Your task to perform on an android device: read, delete, or share a saved page in the chrome app Image 0: 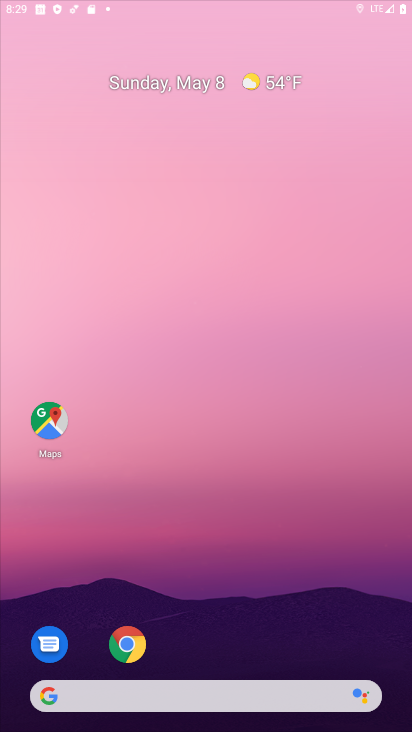
Step 0: click (278, 217)
Your task to perform on an android device: read, delete, or share a saved page in the chrome app Image 1: 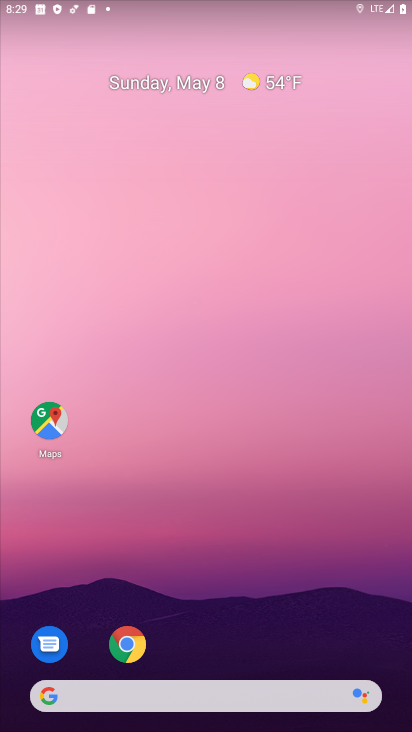
Step 1: drag from (201, 641) to (210, 108)
Your task to perform on an android device: read, delete, or share a saved page in the chrome app Image 2: 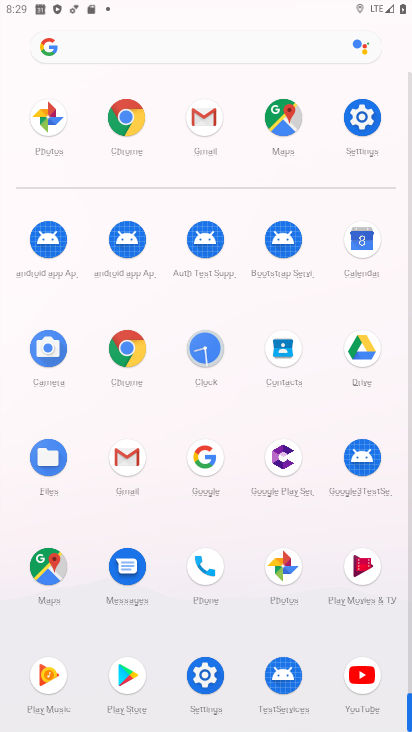
Step 2: click (116, 115)
Your task to perform on an android device: read, delete, or share a saved page in the chrome app Image 3: 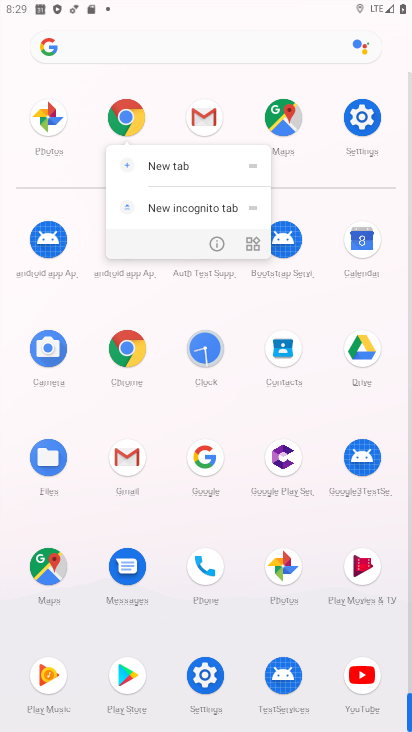
Step 3: click (217, 245)
Your task to perform on an android device: read, delete, or share a saved page in the chrome app Image 4: 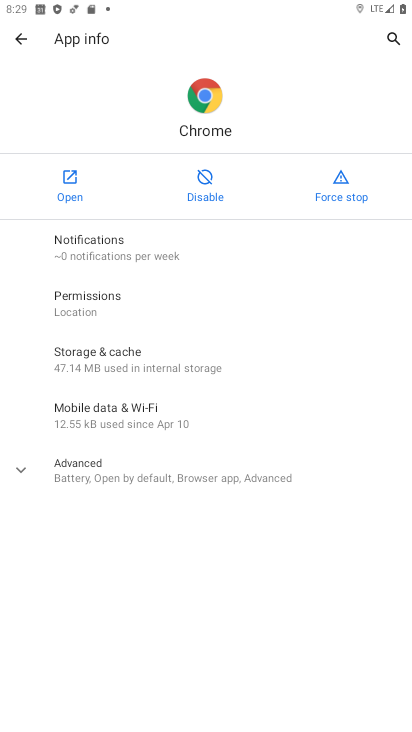
Step 4: click (73, 172)
Your task to perform on an android device: read, delete, or share a saved page in the chrome app Image 5: 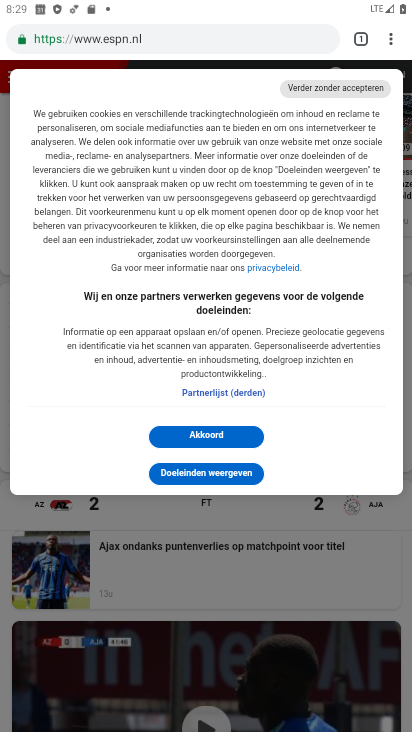
Step 5: drag from (208, 353) to (219, 82)
Your task to perform on an android device: read, delete, or share a saved page in the chrome app Image 6: 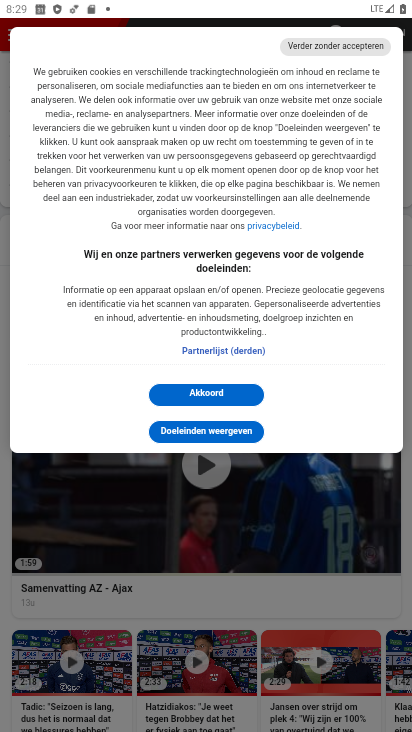
Step 6: drag from (215, 370) to (237, 47)
Your task to perform on an android device: read, delete, or share a saved page in the chrome app Image 7: 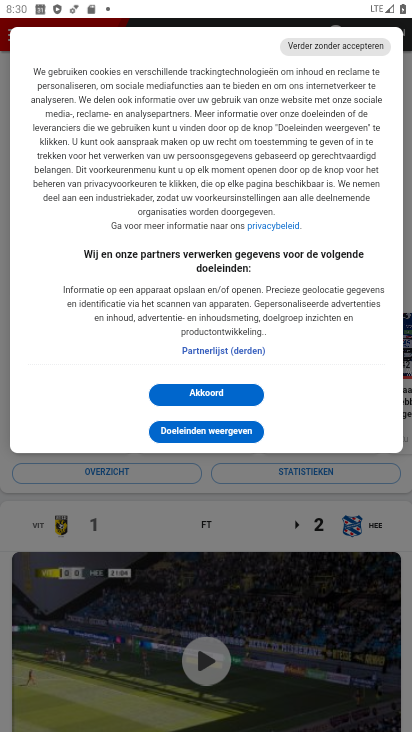
Step 7: drag from (210, 115) to (246, 729)
Your task to perform on an android device: read, delete, or share a saved page in the chrome app Image 8: 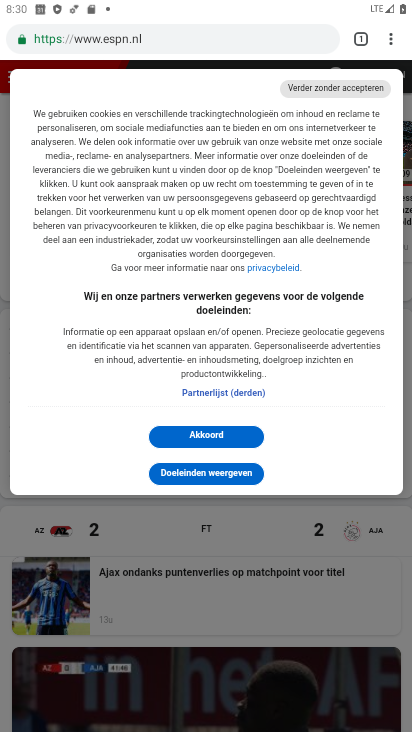
Step 8: drag from (230, 284) to (281, 17)
Your task to perform on an android device: read, delete, or share a saved page in the chrome app Image 9: 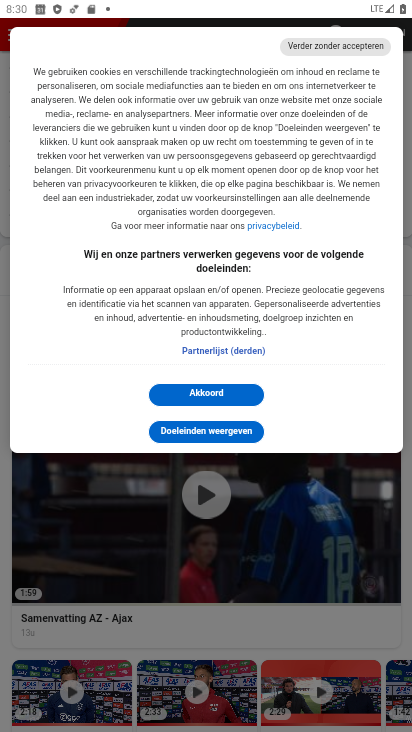
Step 9: drag from (234, 182) to (318, 724)
Your task to perform on an android device: read, delete, or share a saved page in the chrome app Image 10: 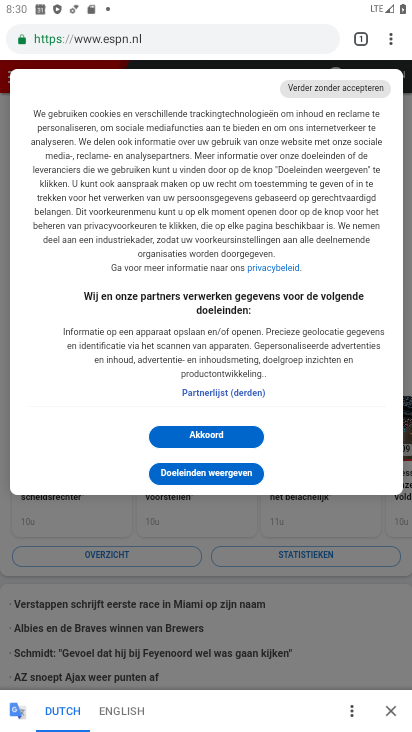
Step 10: drag from (391, 29) to (286, 229)
Your task to perform on an android device: read, delete, or share a saved page in the chrome app Image 11: 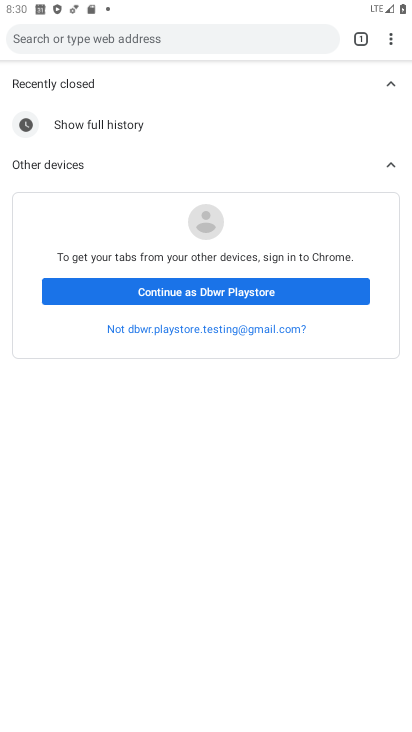
Step 11: drag from (235, 423) to (236, 140)
Your task to perform on an android device: read, delete, or share a saved page in the chrome app Image 12: 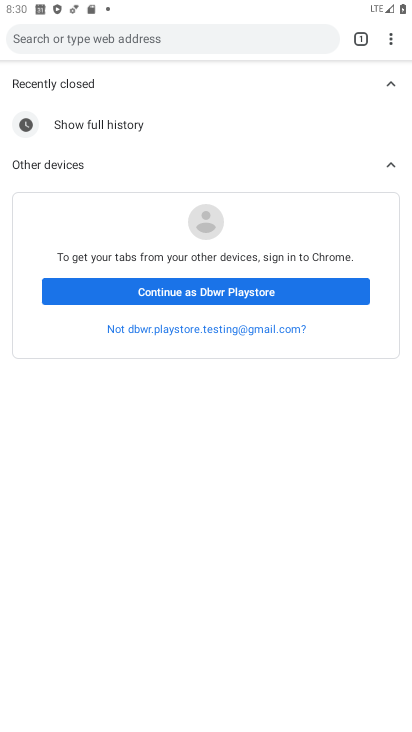
Step 12: click (83, 130)
Your task to perform on an android device: read, delete, or share a saved page in the chrome app Image 13: 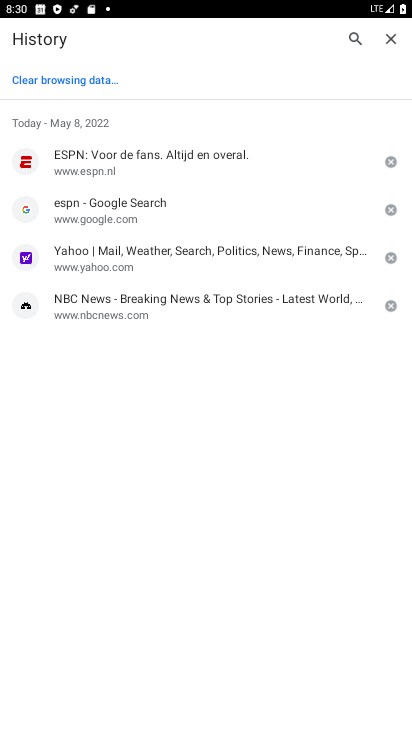
Step 13: click (387, 42)
Your task to perform on an android device: read, delete, or share a saved page in the chrome app Image 14: 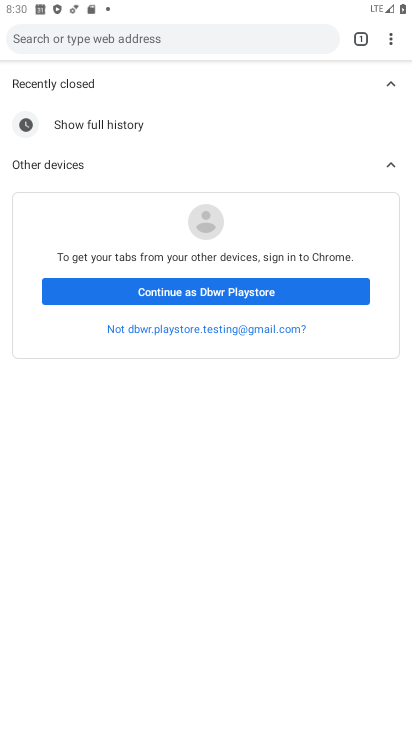
Step 14: click (390, 157)
Your task to perform on an android device: read, delete, or share a saved page in the chrome app Image 15: 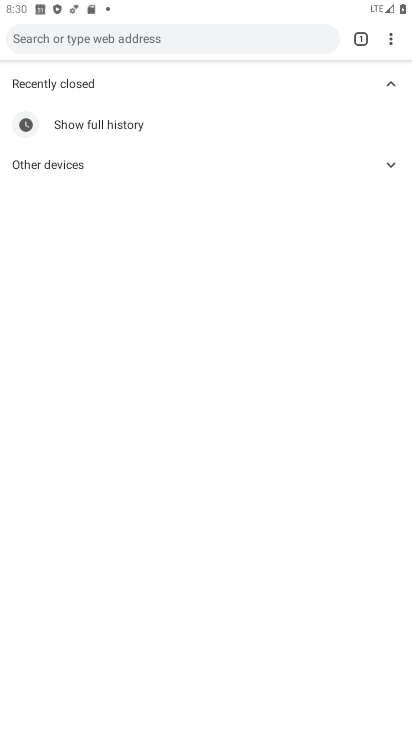
Step 15: click (391, 159)
Your task to perform on an android device: read, delete, or share a saved page in the chrome app Image 16: 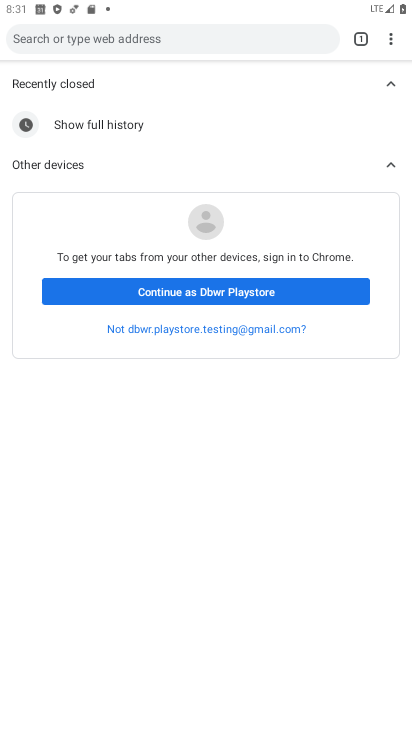
Step 16: drag from (312, 479) to (320, 271)
Your task to perform on an android device: read, delete, or share a saved page in the chrome app Image 17: 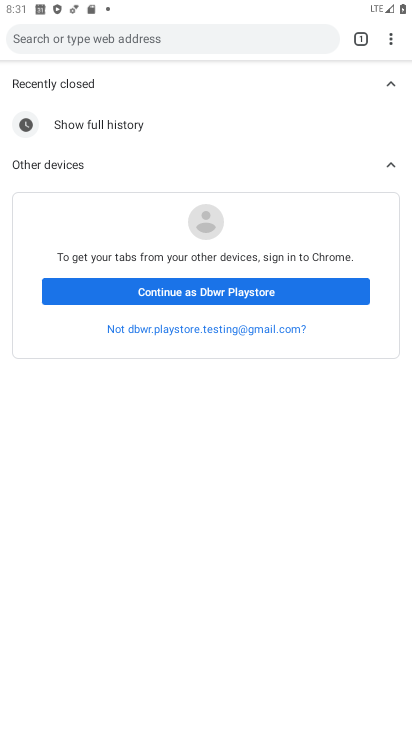
Step 17: click (75, 73)
Your task to perform on an android device: read, delete, or share a saved page in the chrome app Image 18: 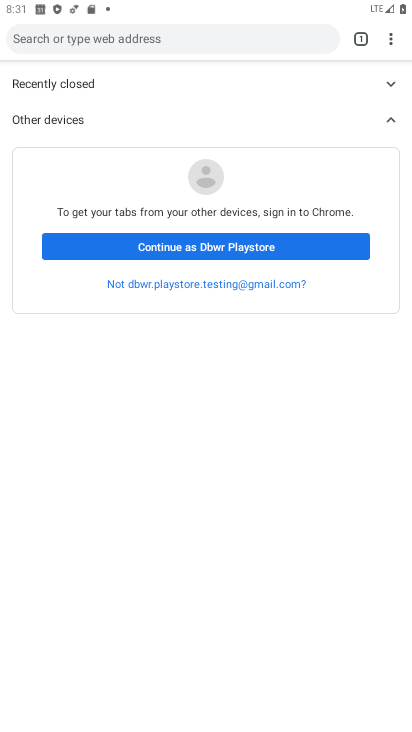
Step 18: click (390, 116)
Your task to perform on an android device: read, delete, or share a saved page in the chrome app Image 19: 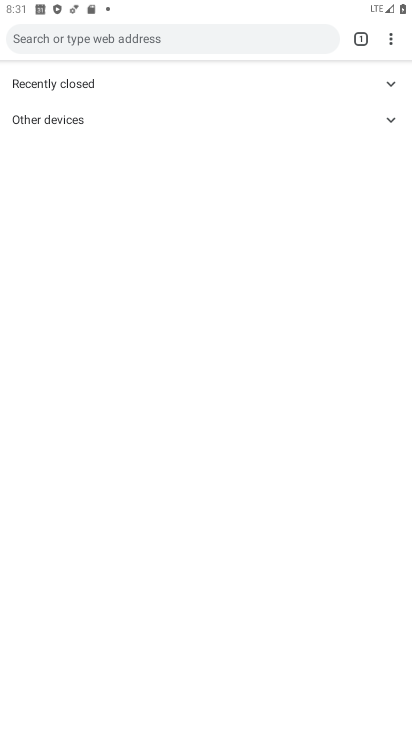
Step 19: task complete